Your task to perform on an android device: Go to Wikipedia Image 0: 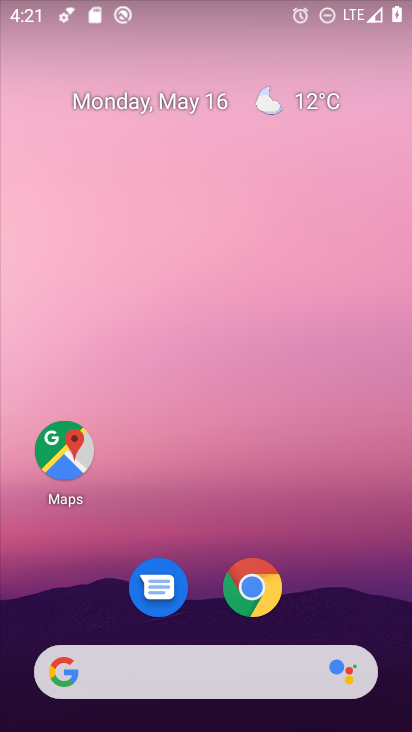
Step 0: click (257, 589)
Your task to perform on an android device: Go to Wikipedia Image 1: 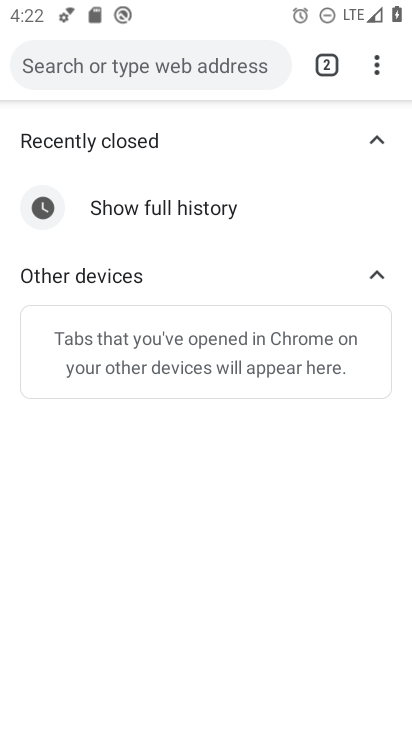
Step 1: click (201, 69)
Your task to perform on an android device: Go to Wikipedia Image 2: 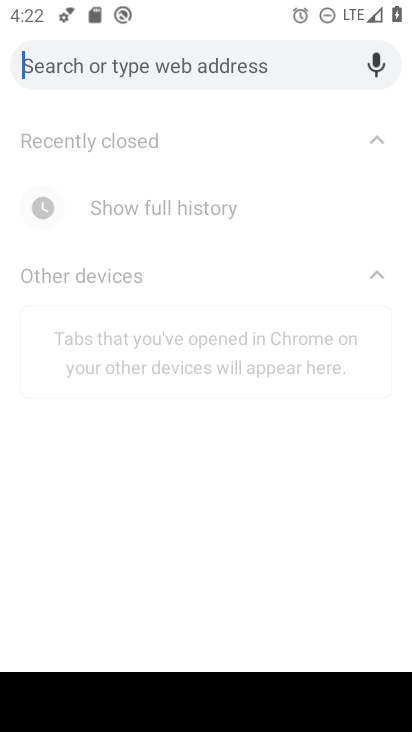
Step 2: type "Wikipedia"
Your task to perform on an android device: Go to Wikipedia Image 3: 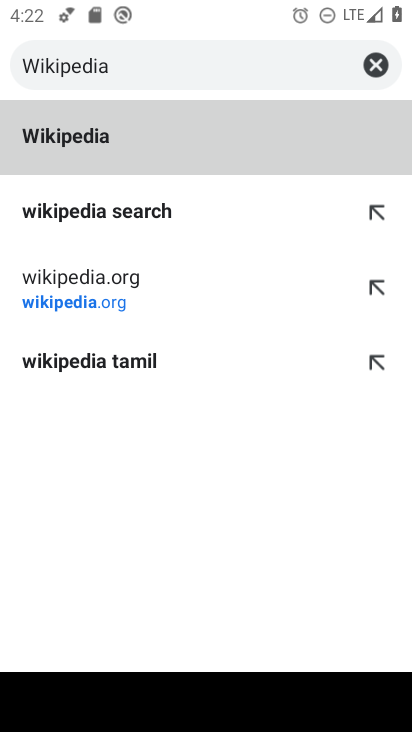
Step 3: click (85, 133)
Your task to perform on an android device: Go to Wikipedia Image 4: 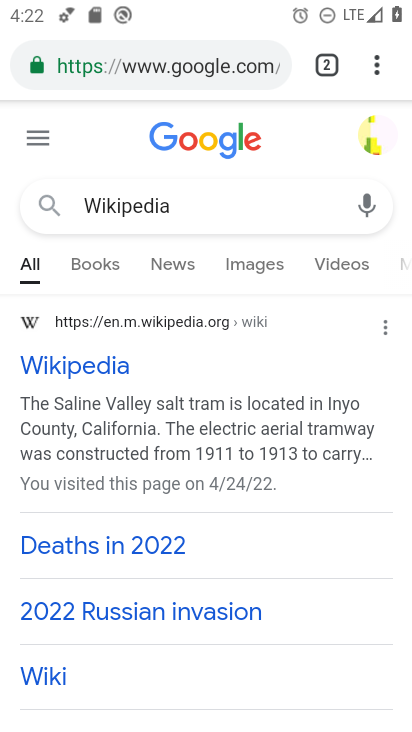
Step 4: task complete